Your task to perform on an android device: Go to Android settings Image 0: 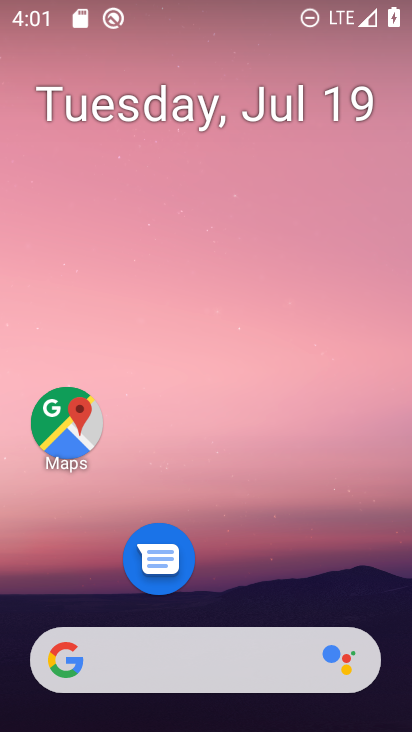
Step 0: drag from (253, 564) to (278, 75)
Your task to perform on an android device: Go to Android settings Image 1: 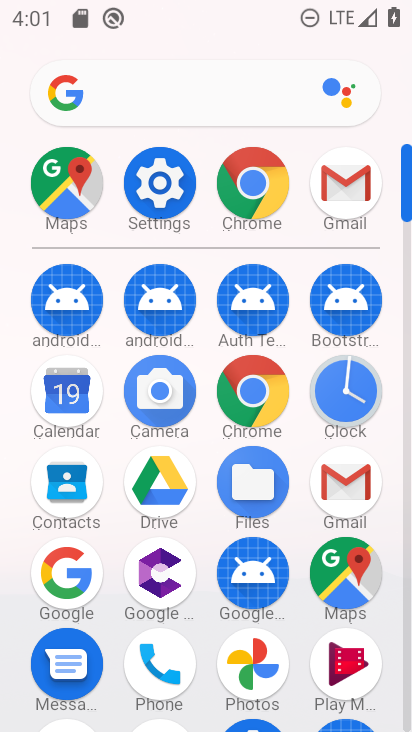
Step 1: click (151, 194)
Your task to perform on an android device: Go to Android settings Image 2: 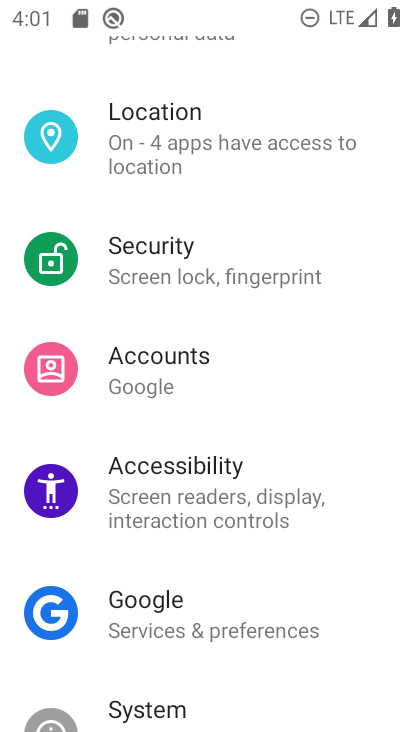
Step 2: drag from (229, 566) to (216, 226)
Your task to perform on an android device: Go to Android settings Image 3: 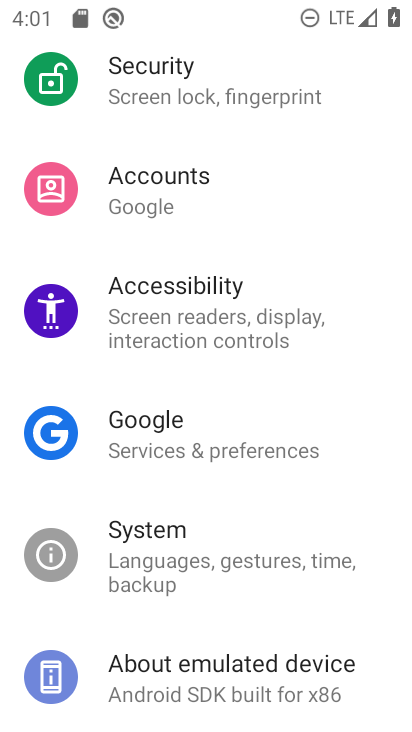
Step 3: drag from (215, 582) to (220, 177)
Your task to perform on an android device: Go to Android settings Image 4: 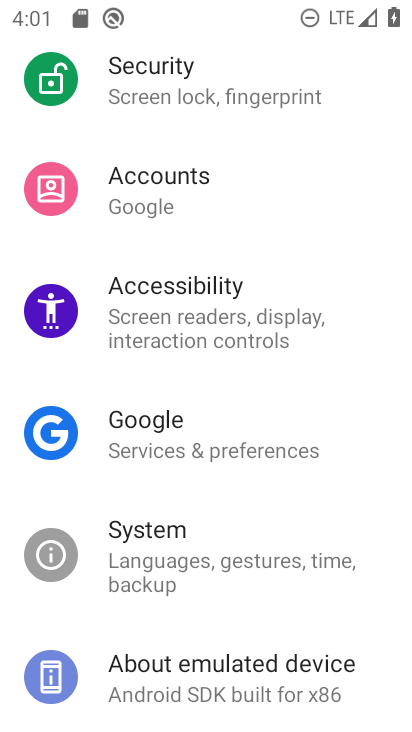
Step 4: click (232, 674)
Your task to perform on an android device: Go to Android settings Image 5: 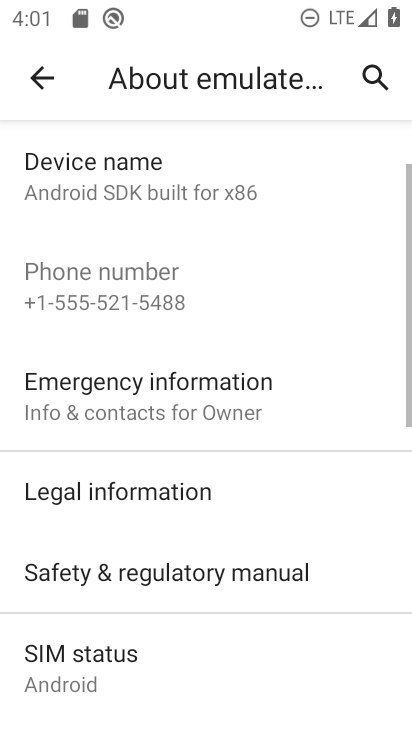
Step 5: drag from (267, 601) to (268, 253)
Your task to perform on an android device: Go to Android settings Image 6: 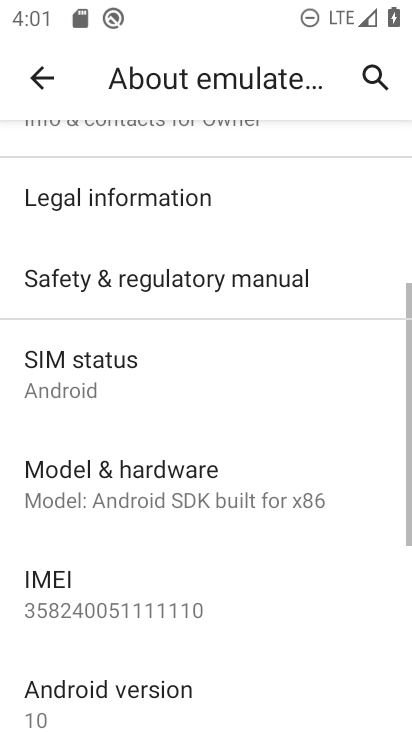
Step 6: click (192, 688)
Your task to perform on an android device: Go to Android settings Image 7: 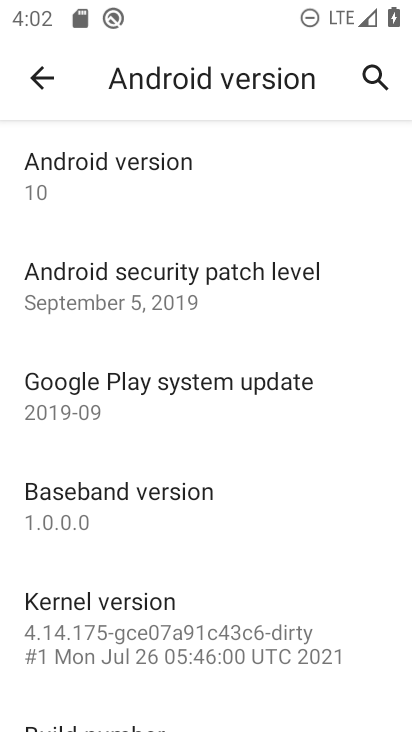
Step 7: task complete